Your task to perform on an android device: open chrome and create a bookmark for the current page Image 0: 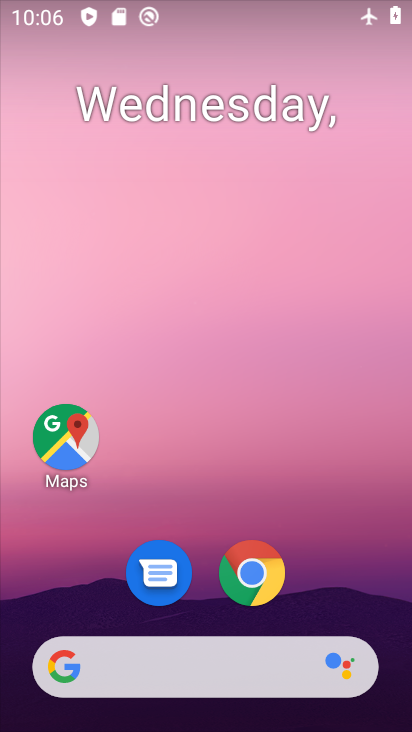
Step 0: click (250, 586)
Your task to perform on an android device: open chrome and create a bookmark for the current page Image 1: 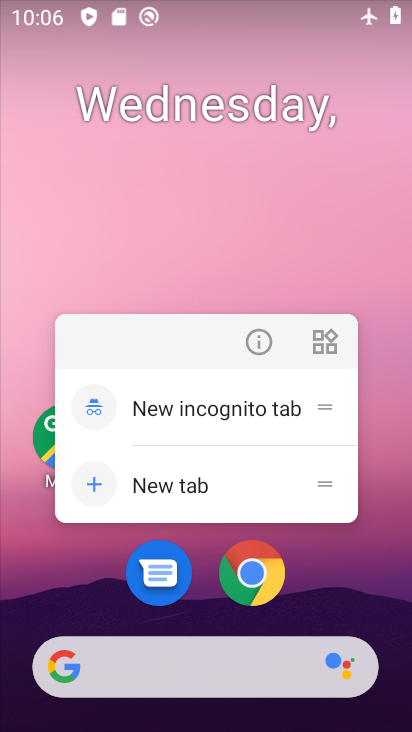
Step 1: click (265, 564)
Your task to perform on an android device: open chrome and create a bookmark for the current page Image 2: 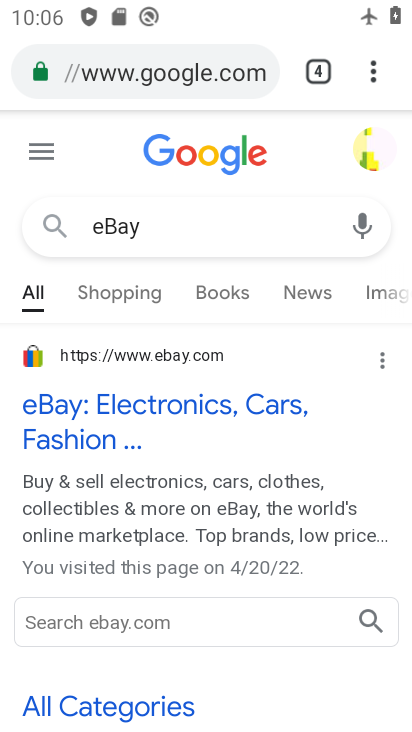
Step 2: click (368, 66)
Your task to perform on an android device: open chrome and create a bookmark for the current page Image 3: 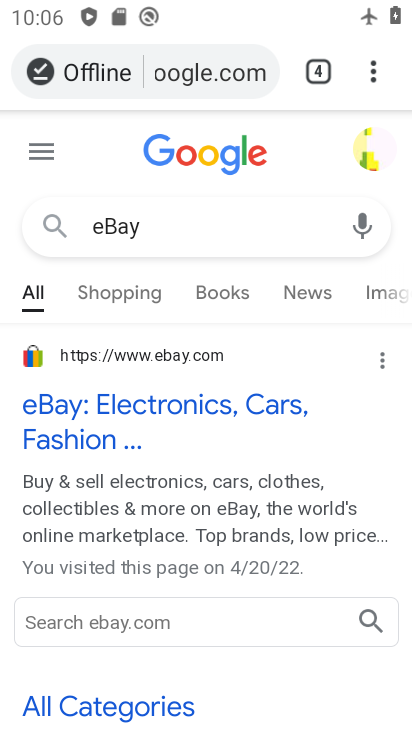
Step 3: click (375, 67)
Your task to perform on an android device: open chrome and create a bookmark for the current page Image 4: 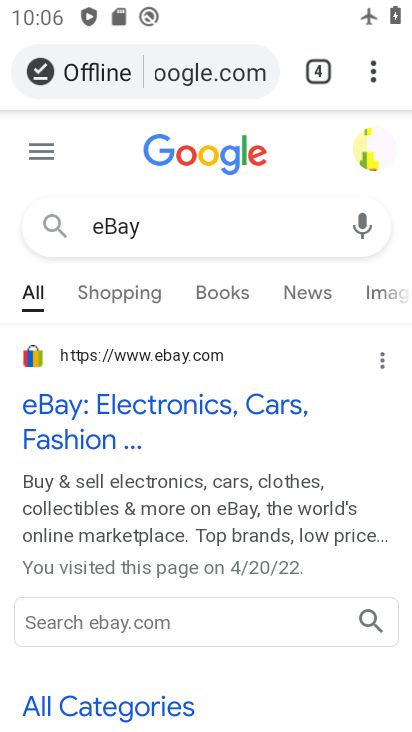
Step 4: click (375, 67)
Your task to perform on an android device: open chrome and create a bookmark for the current page Image 5: 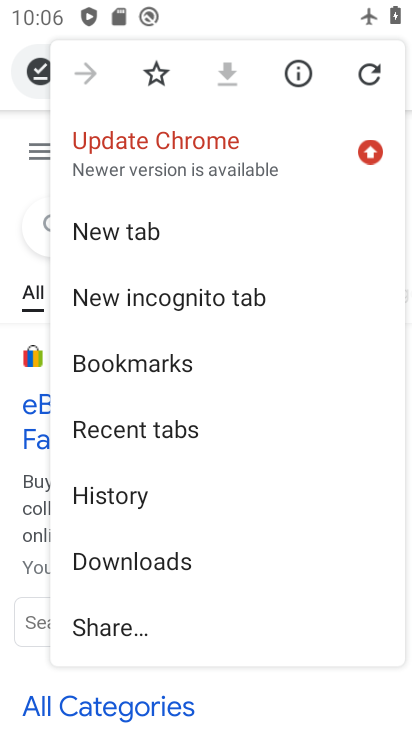
Step 5: click (122, 236)
Your task to perform on an android device: open chrome and create a bookmark for the current page Image 6: 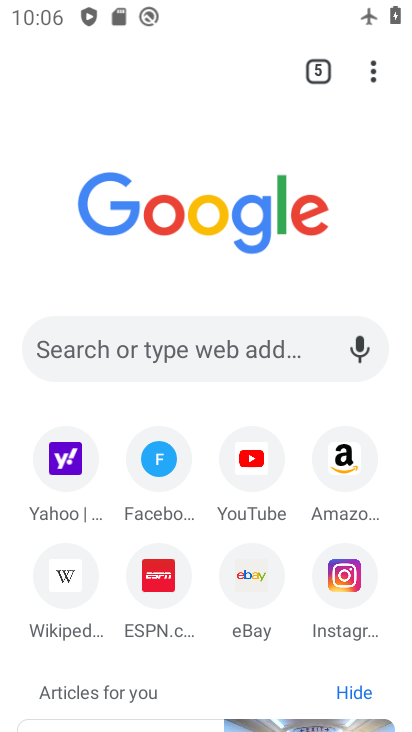
Step 6: click (128, 353)
Your task to perform on an android device: open chrome and create a bookmark for the current page Image 7: 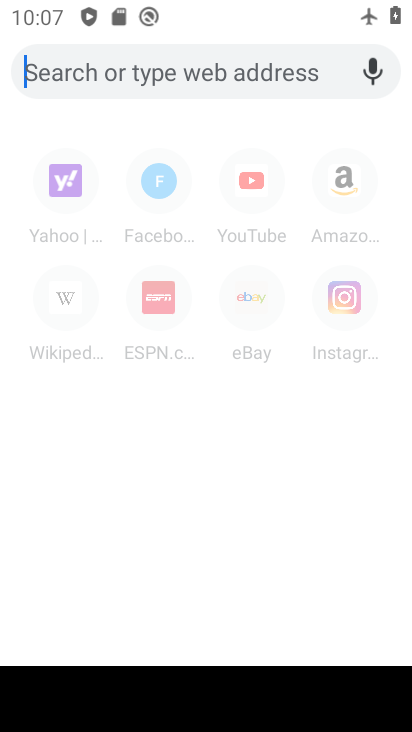
Step 7: type "www.health.com"
Your task to perform on an android device: open chrome and create a bookmark for the current page Image 8: 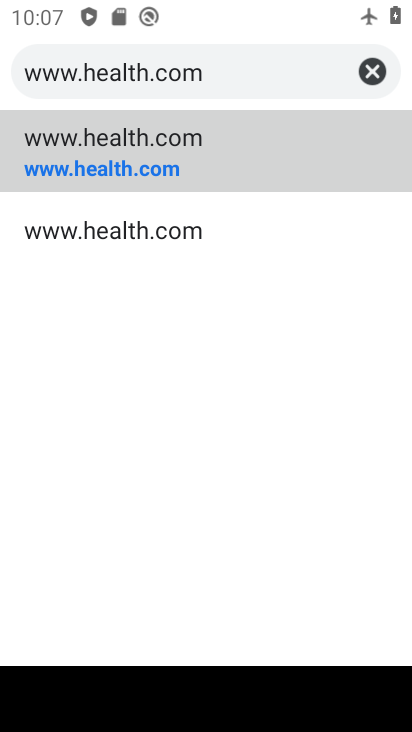
Step 8: click (132, 162)
Your task to perform on an android device: open chrome and create a bookmark for the current page Image 9: 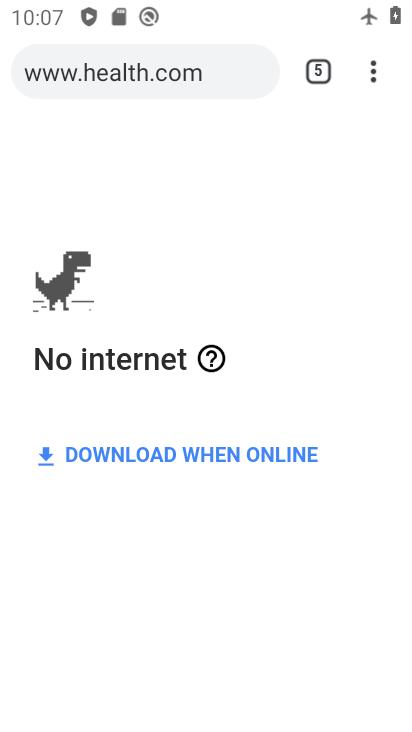
Step 9: task complete